Your task to perform on an android device: see creations saved in the google photos Image 0: 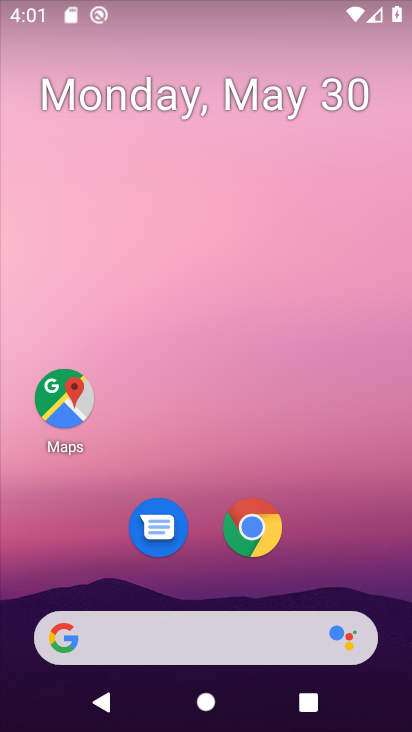
Step 0: drag from (233, 721) to (255, 74)
Your task to perform on an android device: see creations saved in the google photos Image 1: 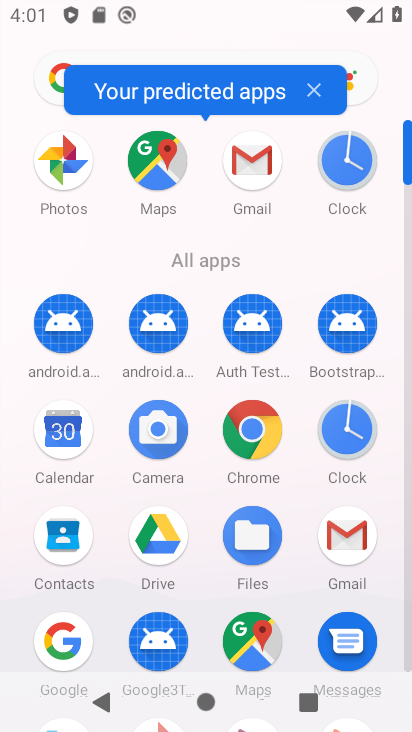
Step 1: drag from (308, 609) to (299, 153)
Your task to perform on an android device: see creations saved in the google photos Image 2: 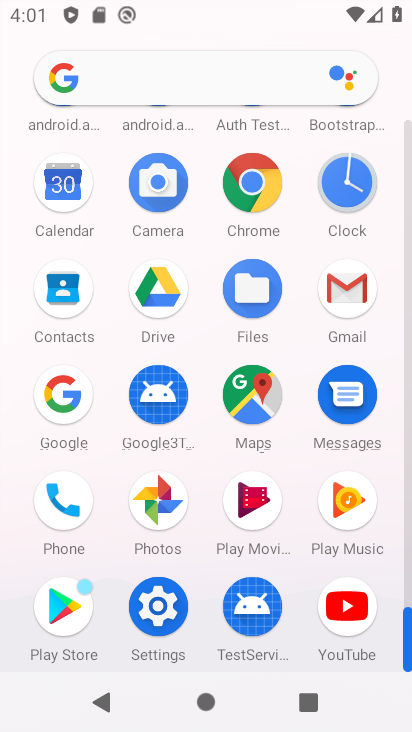
Step 2: click (166, 497)
Your task to perform on an android device: see creations saved in the google photos Image 3: 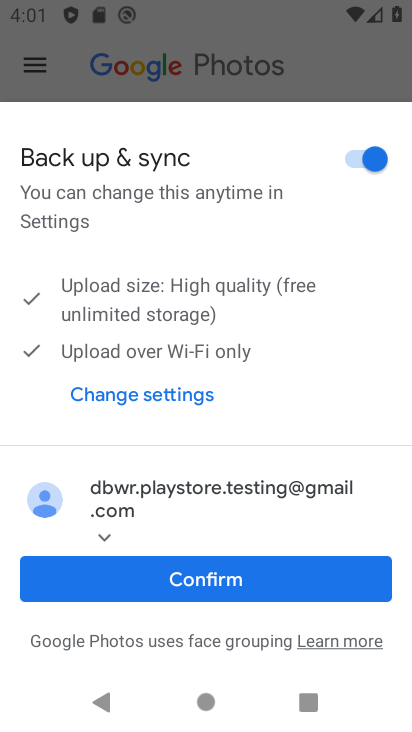
Step 3: click (197, 578)
Your task to perform on an android device: see creations saved in the google photos Image 4: 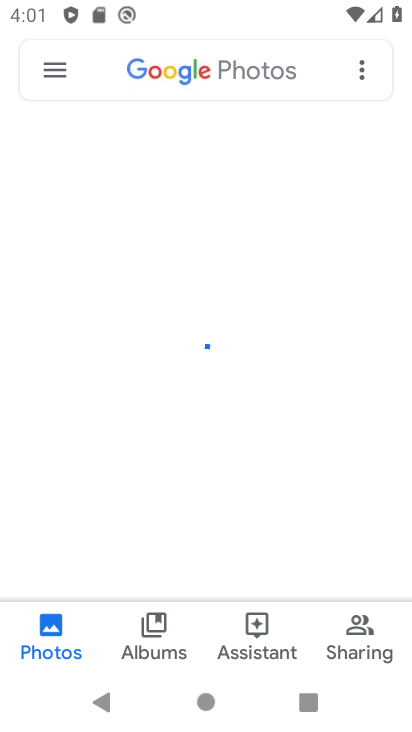
Step 4: click (28, 58)
Your task to perform on an android device: see creations saved in the google photos Image 5: 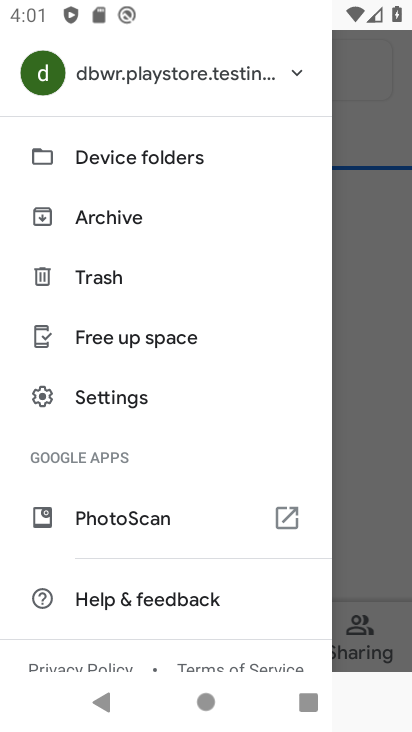
Step 5: click (356, 80)
Your task to perform on an android device: see creations saved in the google photos Image 6: 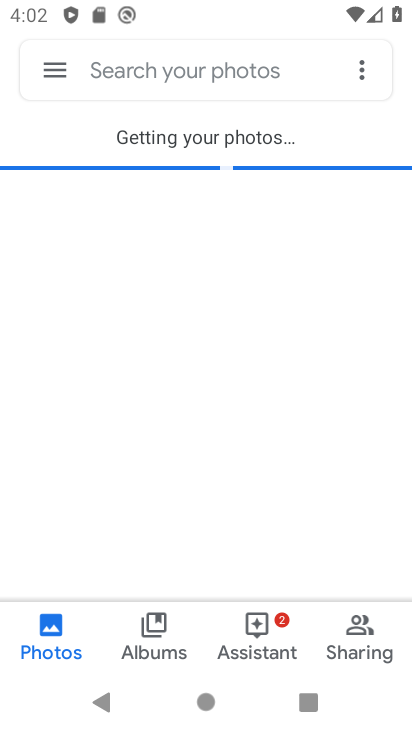
Step 6: click (198, 70)
Your task to perform on an android device: see creations saved in the google photos Image 7: 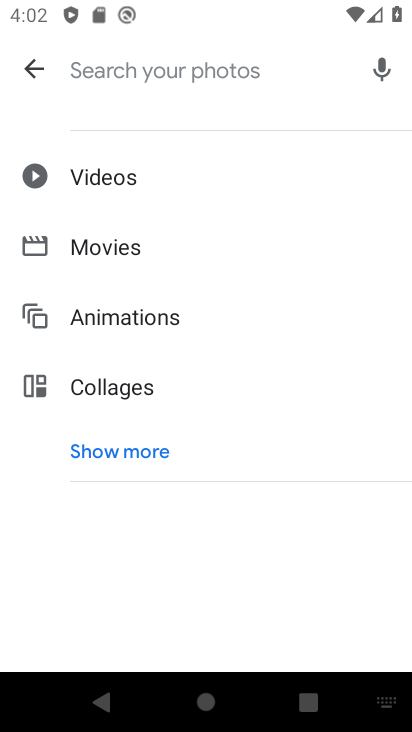
Step 7: click (119, 448)
Your task to perform on an android device: see creations saved in the google photos Image 8: 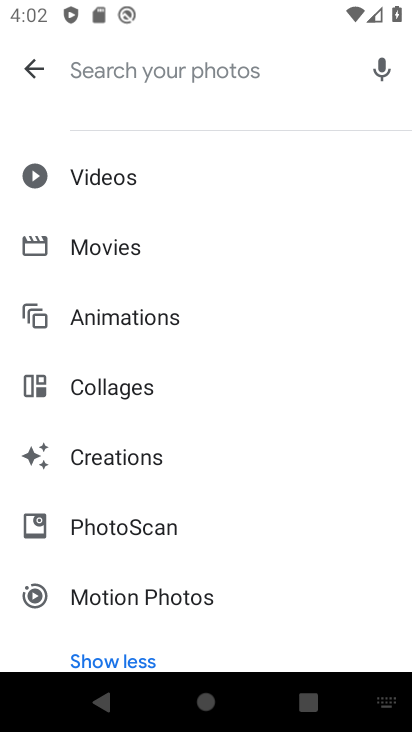
Step 8: click (117, 457)
Your task to perform on an android device: see creations saved in the google photos Image 9: 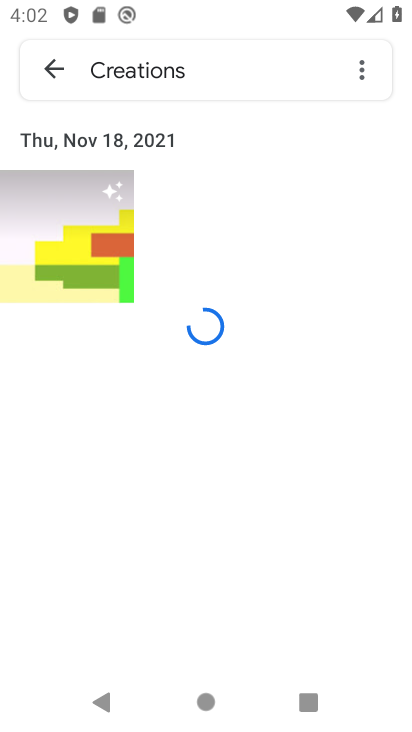
Step 9: task complete